Your task to perform on an android device: Clear the shopping cart on target. Add "panasonic triple a" to the cart on target, then select checkout. Image 0: 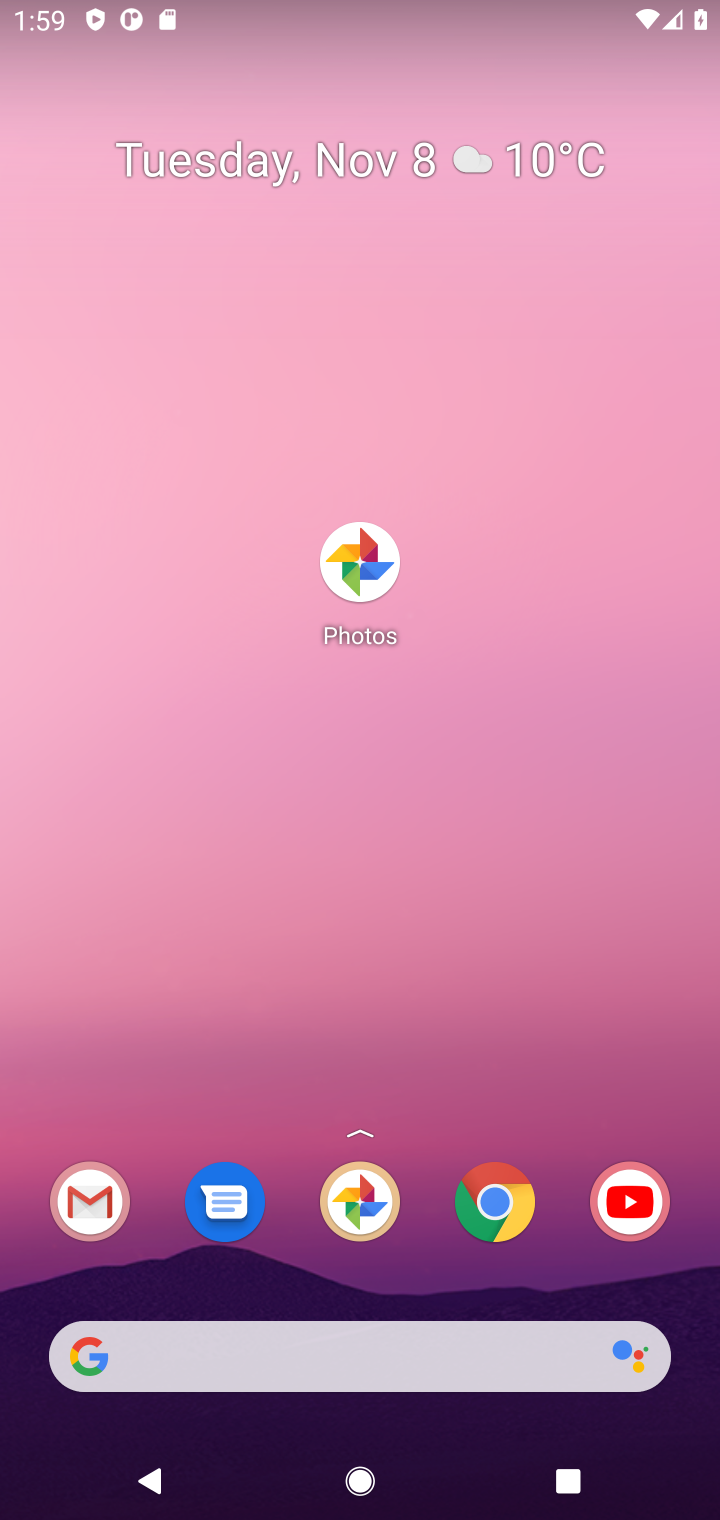
Step 0: drag from (248, 1311) to (221, 560)
Your task to perform on an android device: Clear the shopping cart on target. Add "panasonic triple a" to the cart on target, then select checkout. Image 1: 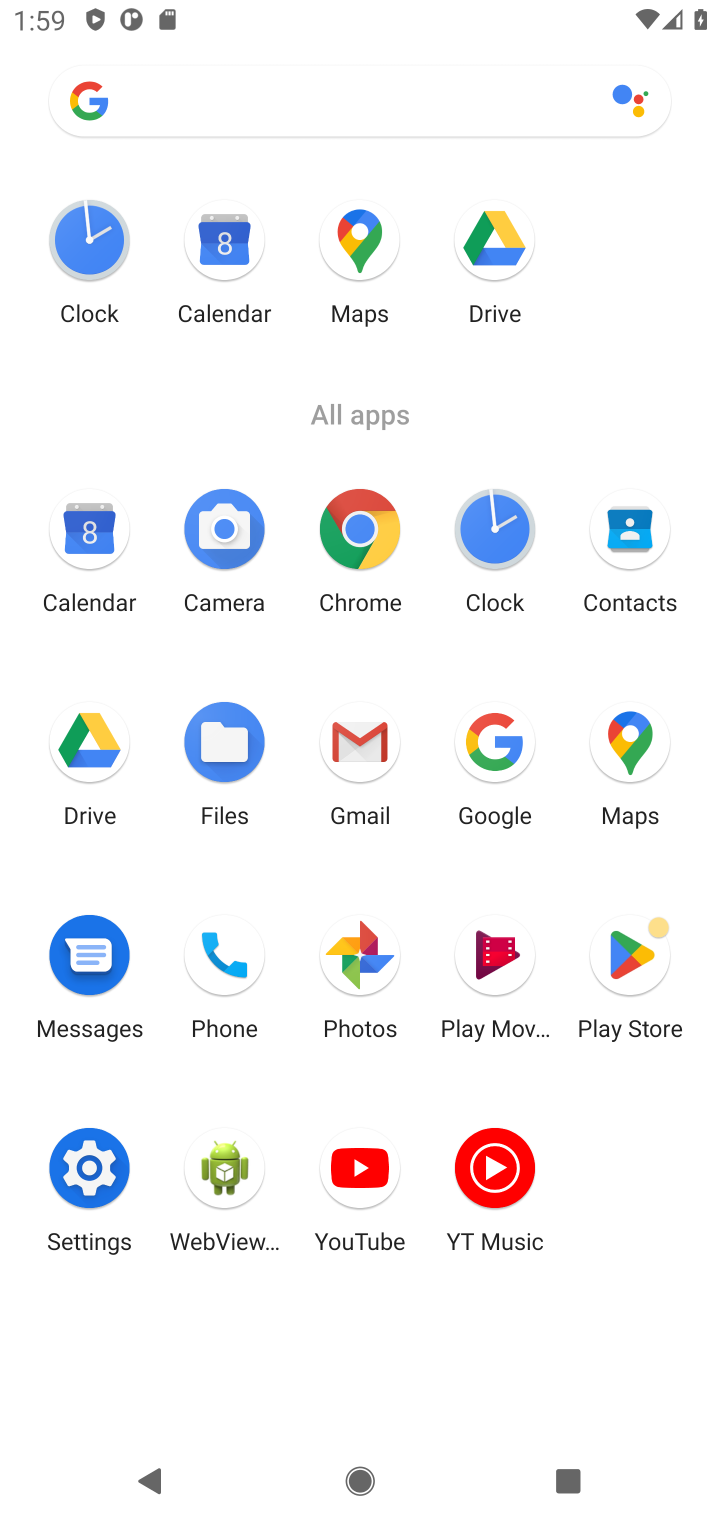
Step 1: click (489, 754)
Your task to perform on an android device: Clear the shopping cart on target. Add "panasonic triple a" to the cart on target, then select checkout. Image 2: 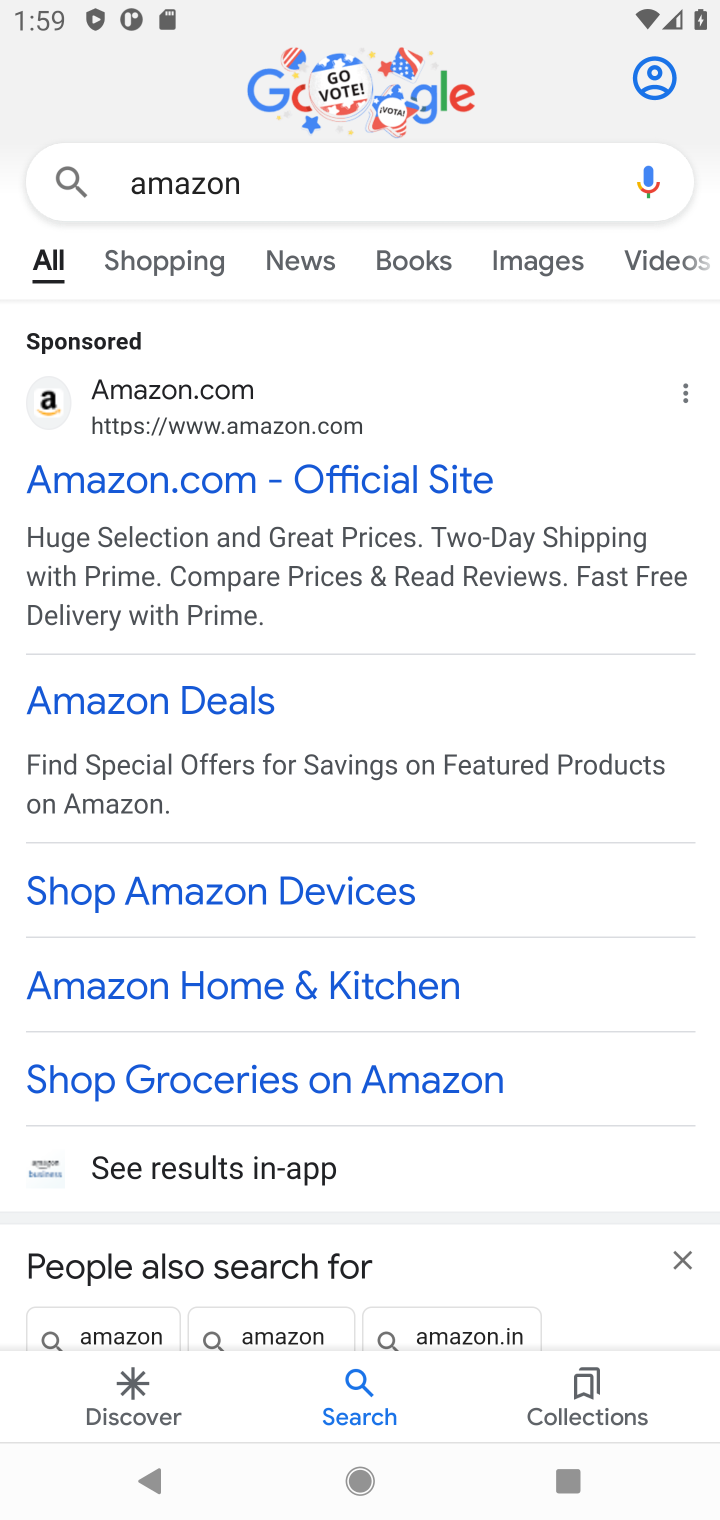
Step 2: click (490, 196)
Your task to perform on an android device: Clear the shopping cart on target. Add "panasonic triple a" to the cart on target, then select checkout. Image 3: 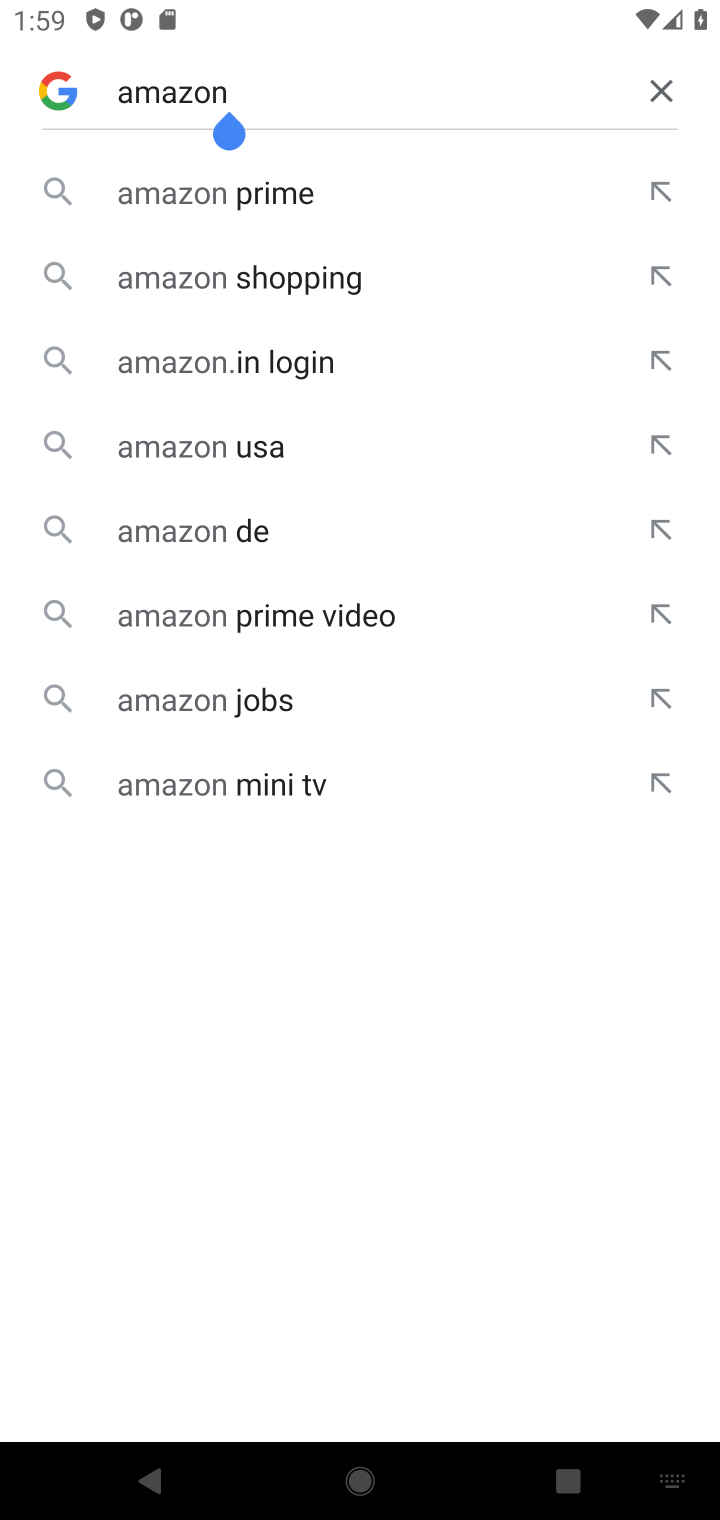
Step 3: click (678, 83)
Your task to perform on an android device: Clear the shopping cart on target. Add "panasonic triple a" to the cart on target, then select checkout. Image 4: 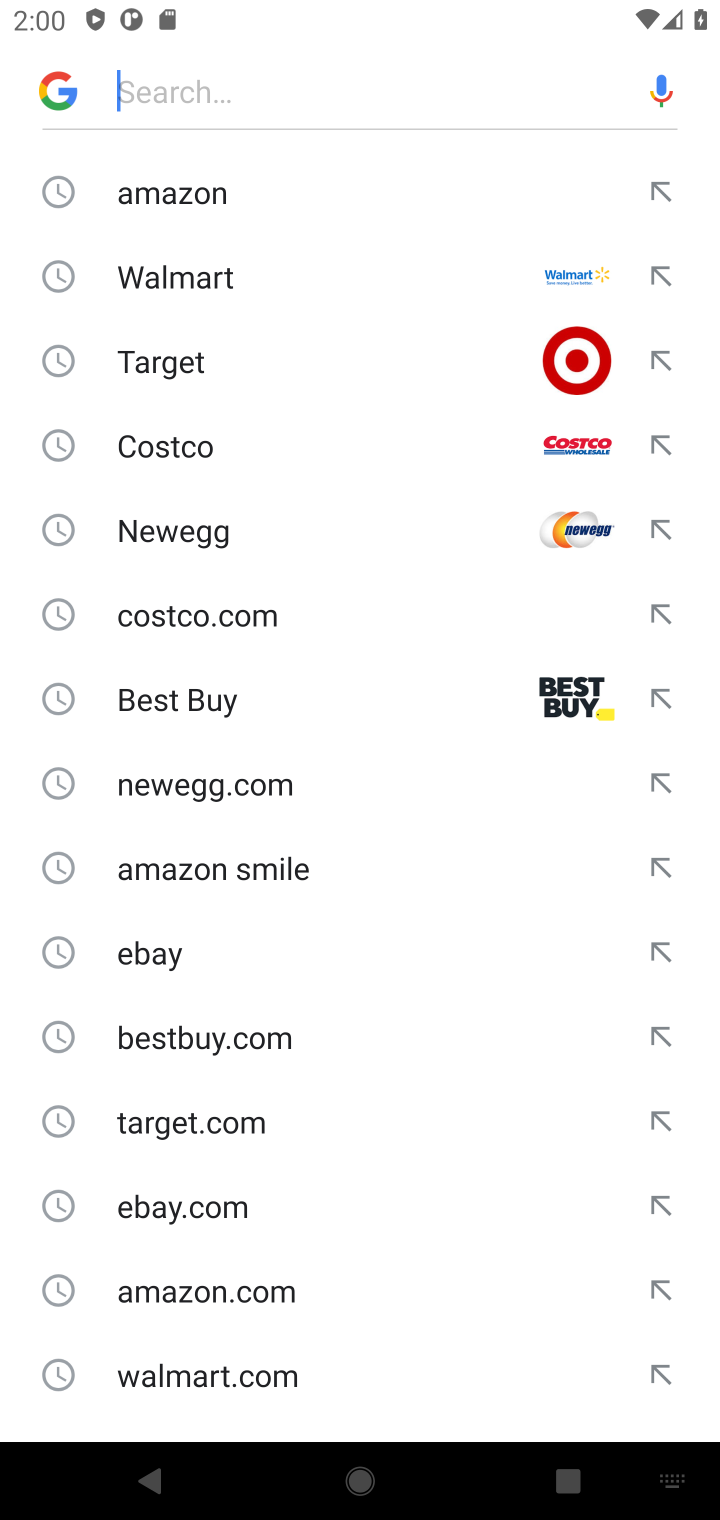
Step 4: click (678, 83)
Your task to perform on an android device: Clear the shopping cart on target. Add "panasonic triple a" to the cart on target, then select checkout. Image 5: 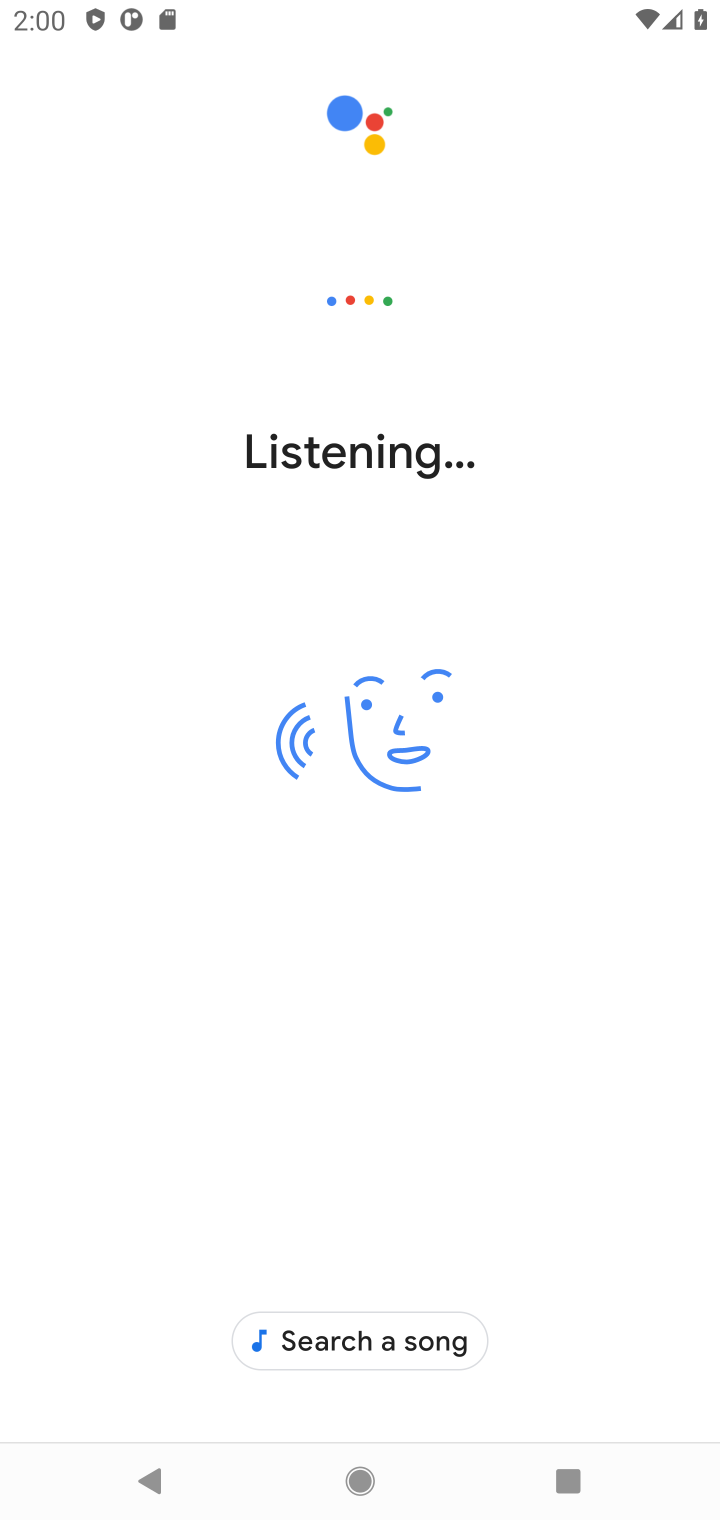
Step 5: click (678, 83)
Your task to perform on an android device: Clear the shopping cart on target. Add "panasonic triple a" to the cart on target, then select checkout. Image 6: 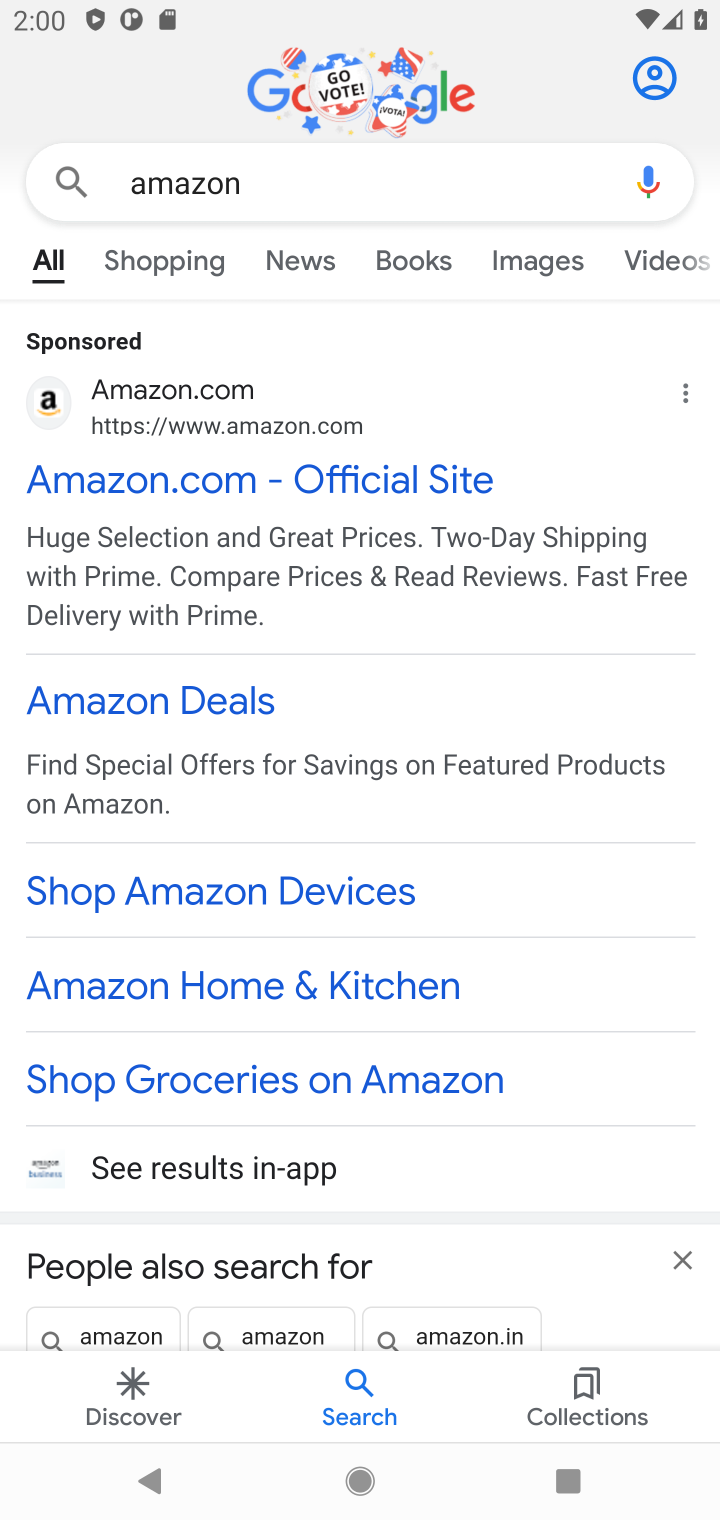
Step 6: click (468, 447)
Your task to perform on an android device: Clear the shopping cart on target. Add "panasonic triple a" to the cart on target, then select checkout. Image 7: 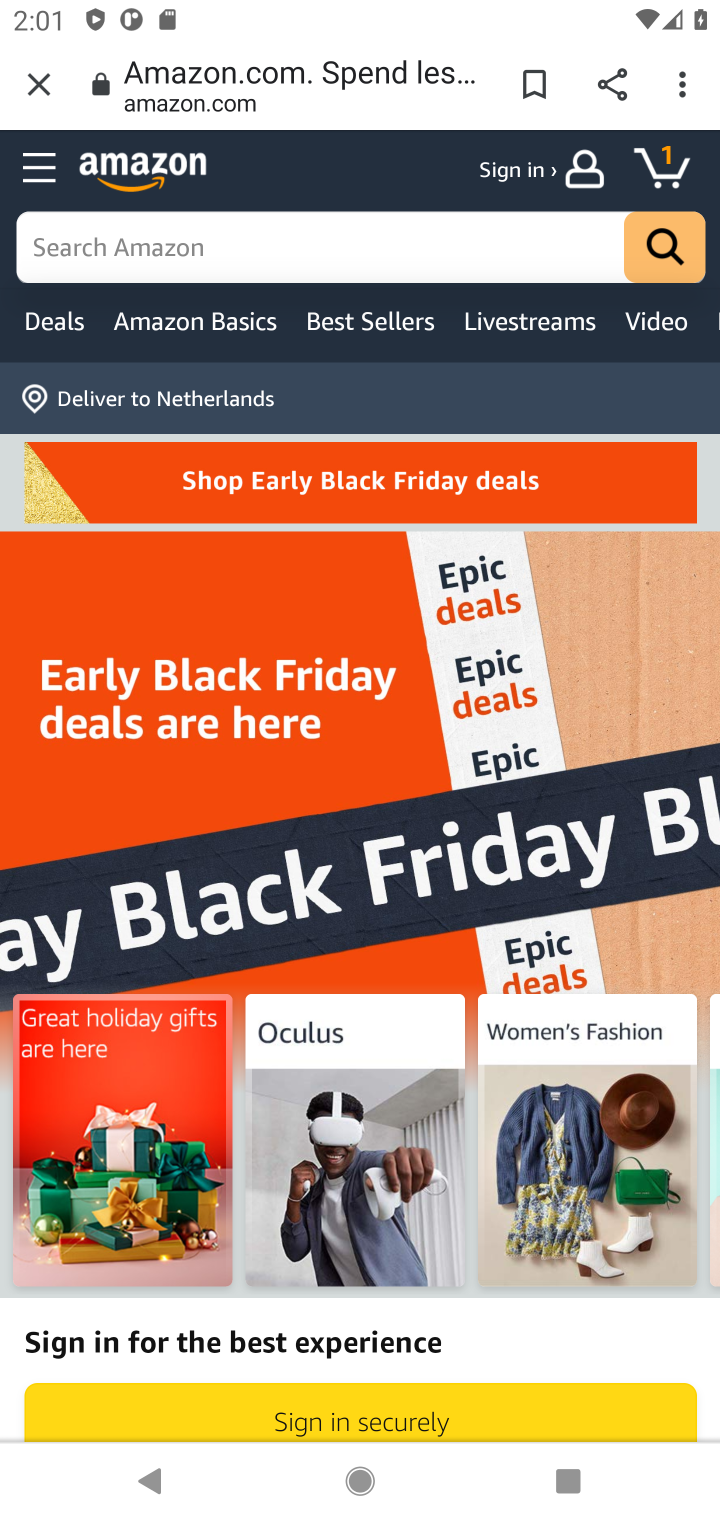
Step 7: click (464, 278)
Your task to perform on an android device: Clear the shopping cart on target. Add "panasonic triple a" to the cart on target, then select checkout. Image 8: 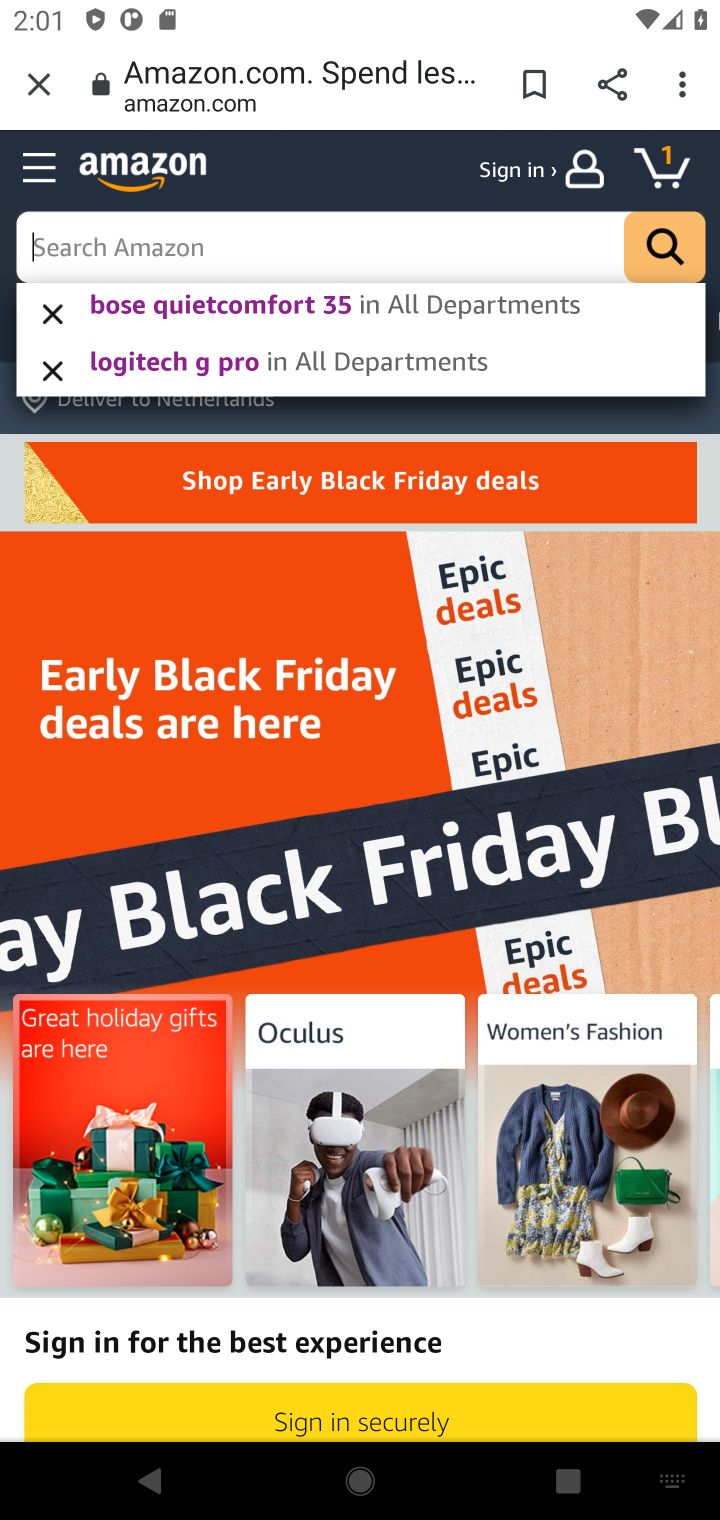
Step 8: type "panasonic triple a"
Your task to perform on an android device: Clear the shopping cart on target. Add "panasonic triple a" to the cart on target, then select checkout. Image 9: 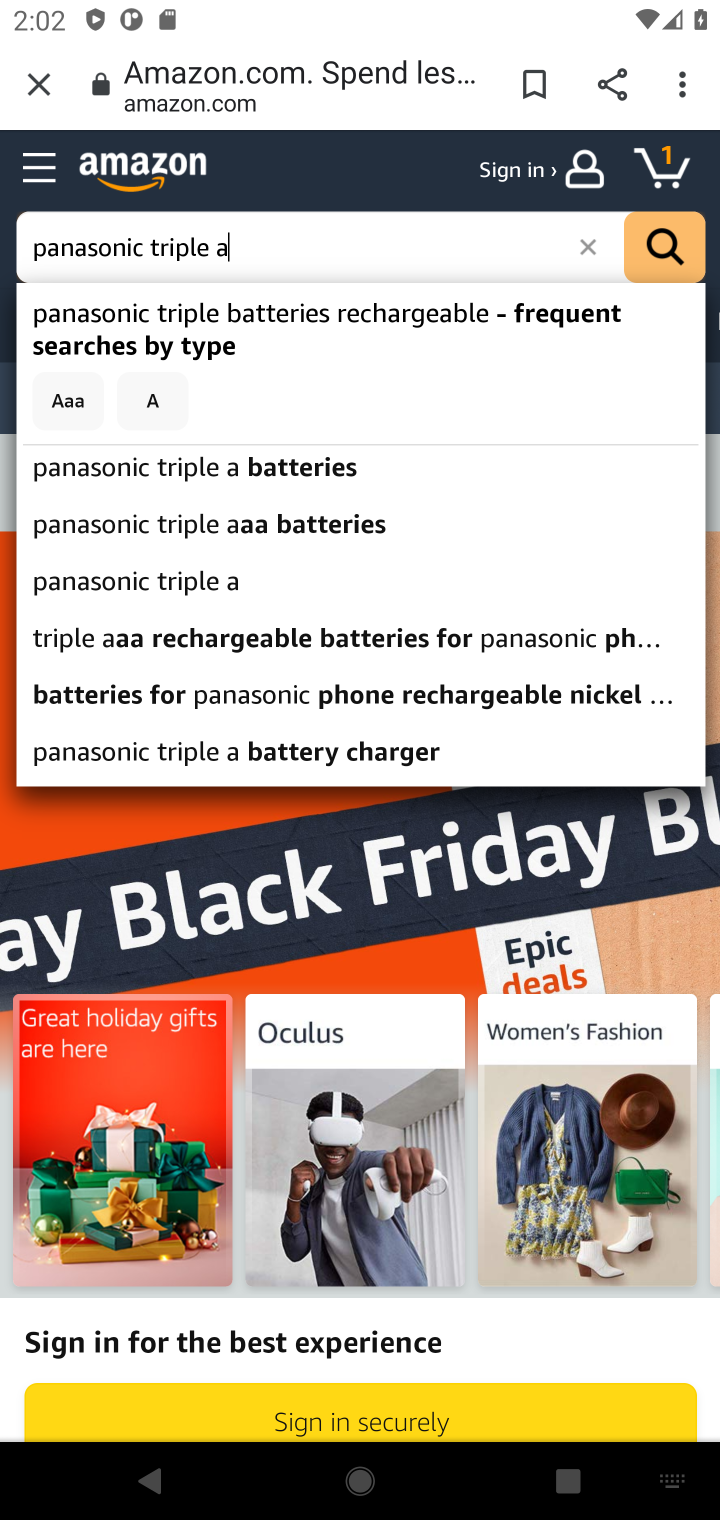
Step 9: click (358, 471)
Your task to perform on an android device: Clear the shopping cart on target. Add "panasonic triple a" to the cart on target, then select checkout. Image 10: 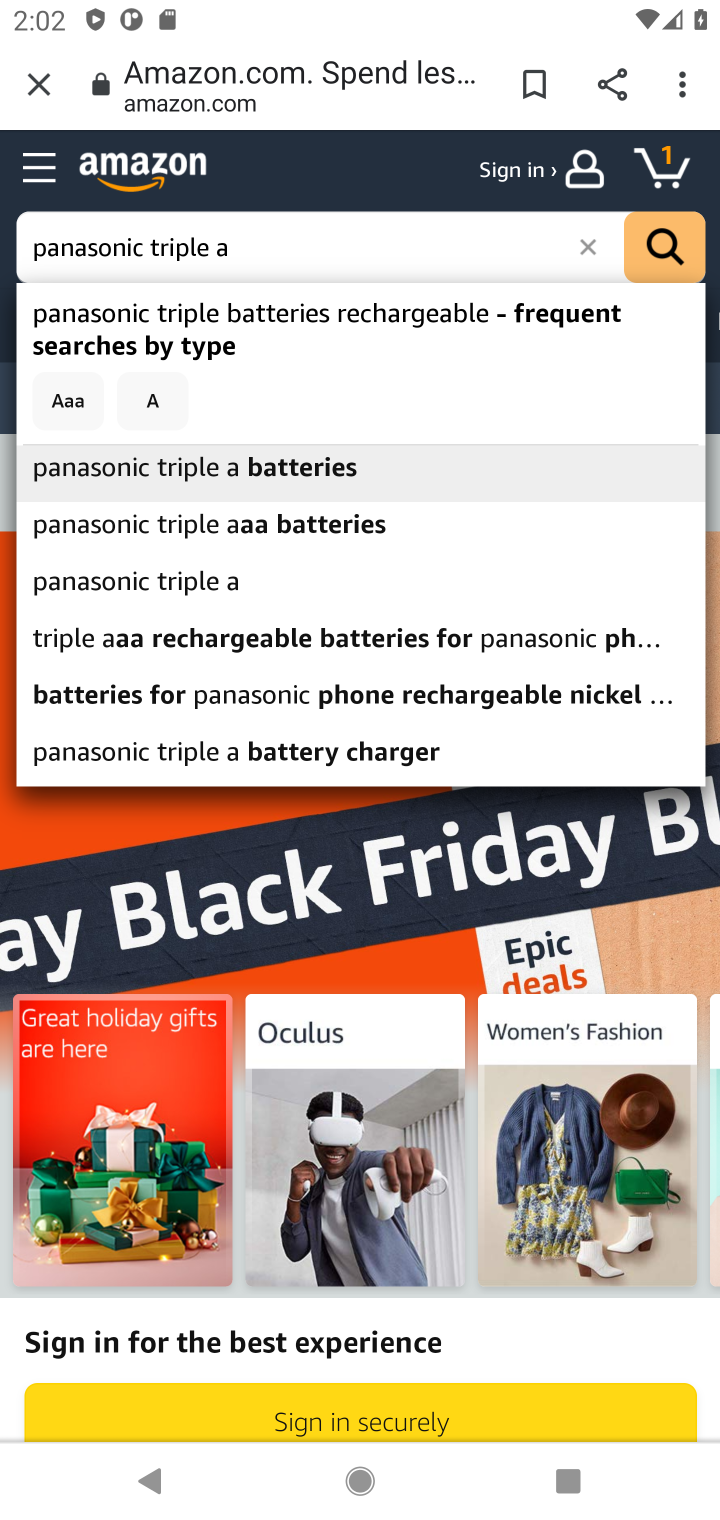
Step 10: click (444, 491)
Your task to perform on an android device: Clear the shopping cart on target. Add "panasonic triple a" to the cart on target, then select checkout. Image 11: 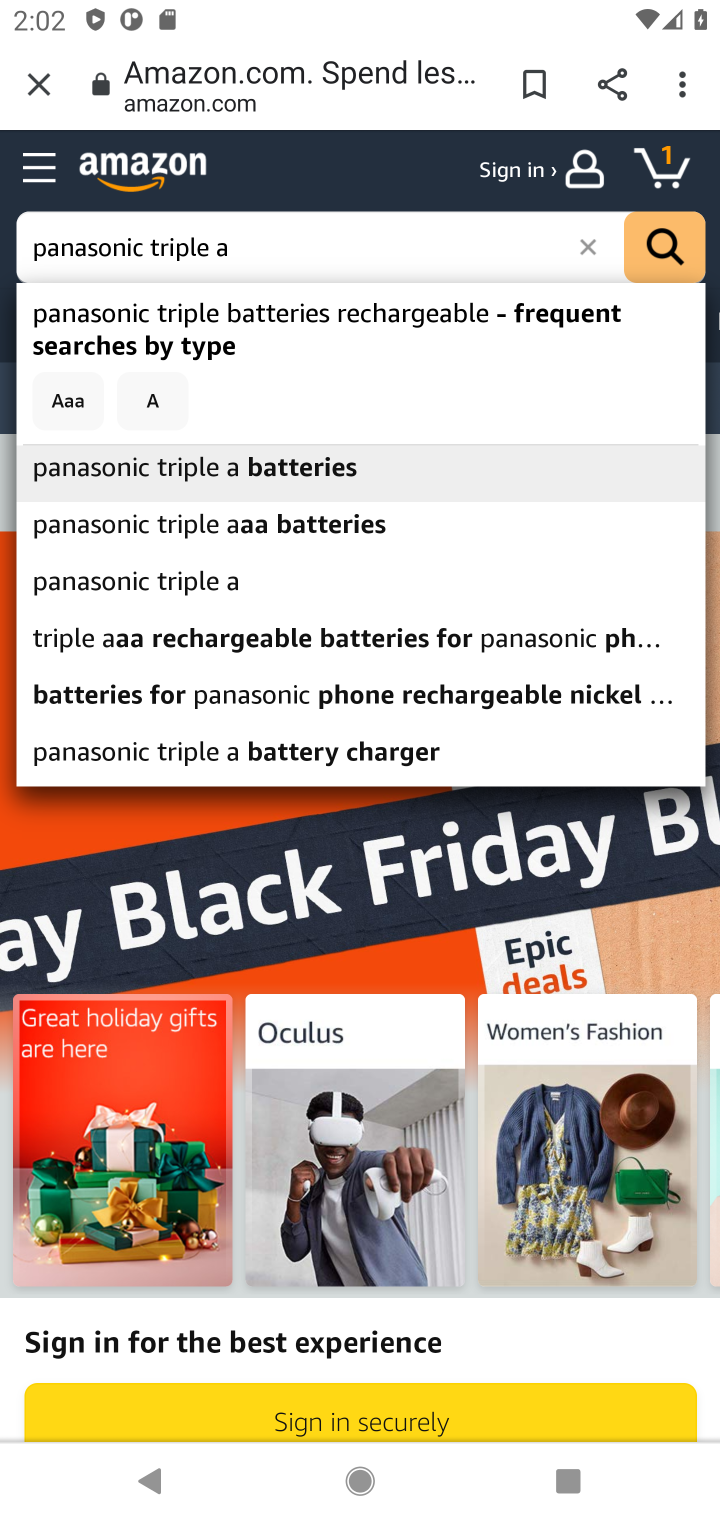
Step 11: task complete